Your task to perform on an android device: Open Android settings Image 0: 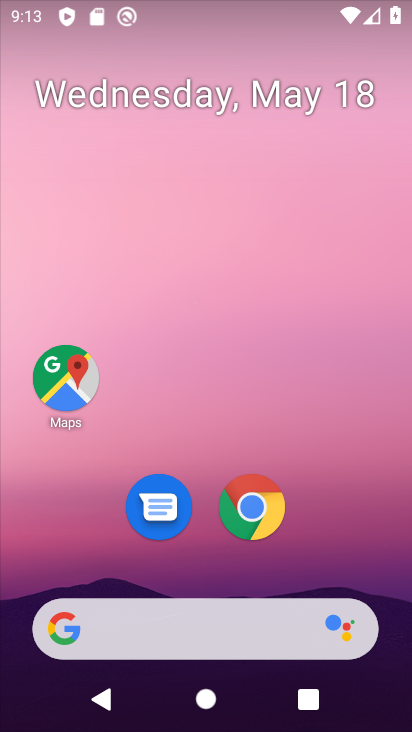
Step 0: drag from (335, 516) to (306, 100)
Your task to perform on an android device: Open Android settings Image 1: 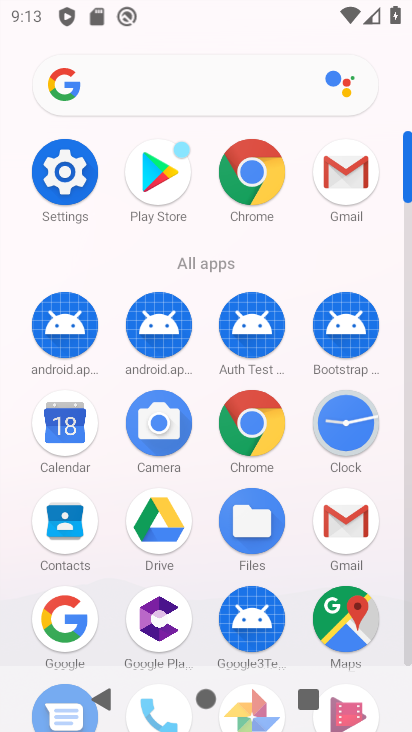
Step 1: click (50, 166)
Your task to perform on an android device: Open Android settings Image 2: 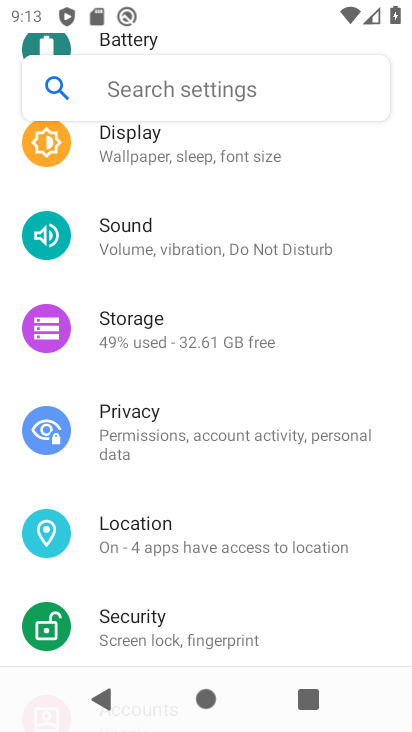
Step 2: task complete